Your task to perform on an android device: Open Amazon Image 0: 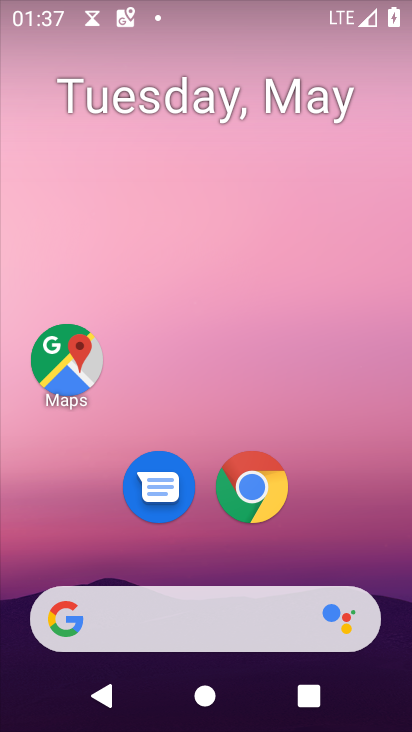
Step 0: drag from (202, 567) to (124, 191)
Your task to perform on an android device: Open Amazon Image 1: 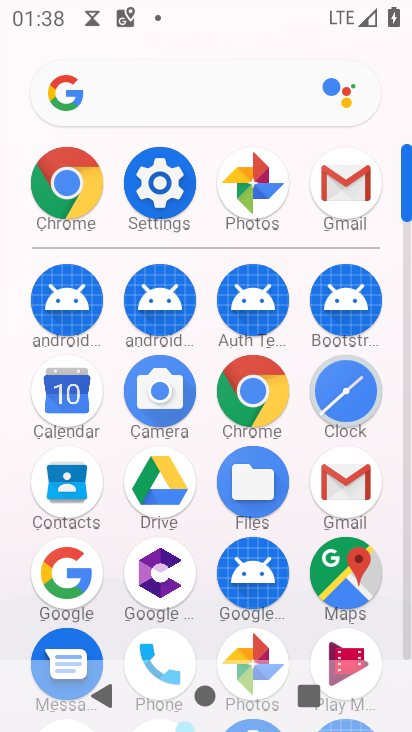
Step 1: drag from (251, 683) to (190, 366)
Your task to perform on an android device: Open Amazon Image 2: 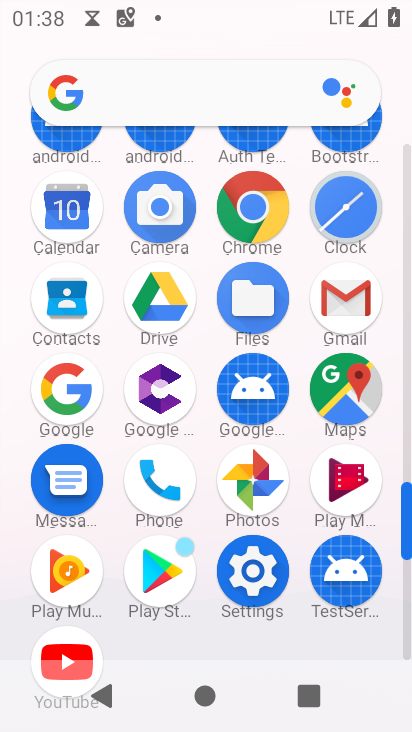
Step 2: drag from (214, 275) to (282, 647)
Your task to perform on an android device: Open Amazon Image 3: 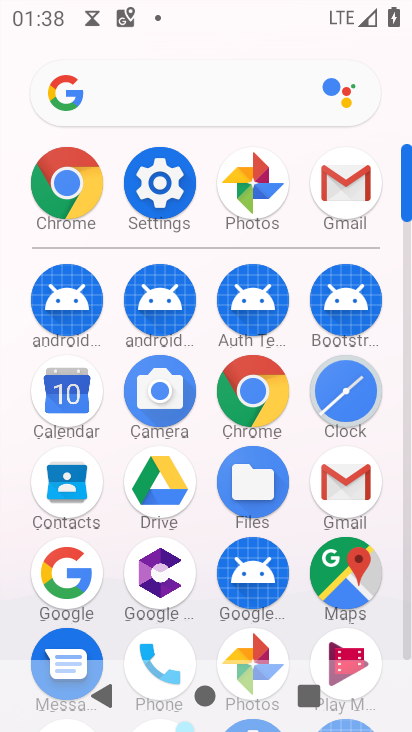
Step 3: click (75, 182)
Your task to perform on an android device: Open Amazon Image 4: 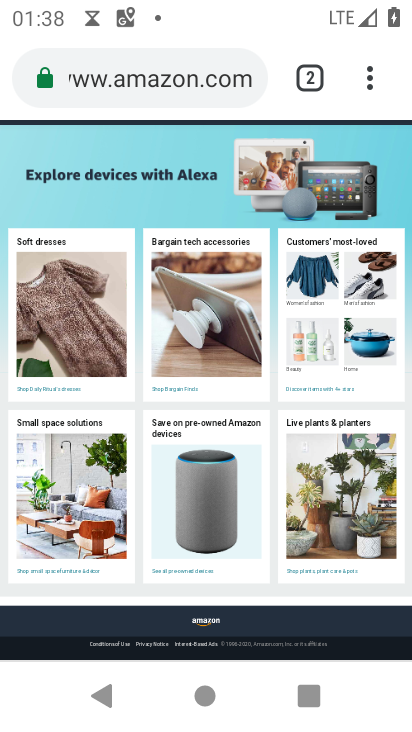
Step 4: task complete